Your task to perform on an android device: show emergency info Image 0: 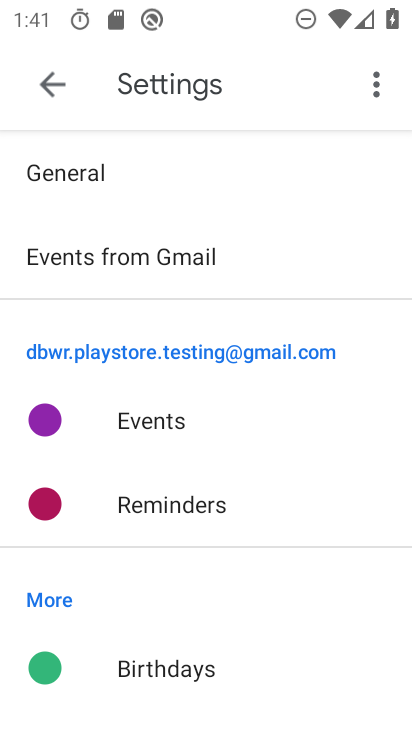
Step 0: press home button
Your task to perform on an android device: show emergency info Image 1: 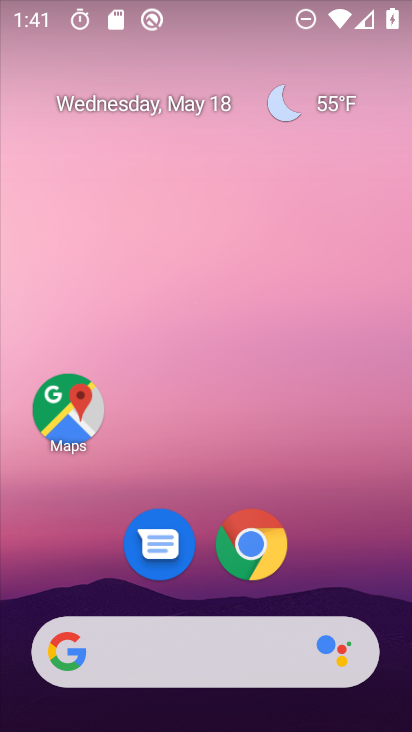
Step 1: drag from (339, 578) to (237, 17)
Your task to perform on an android device: show emergency info Image 2: 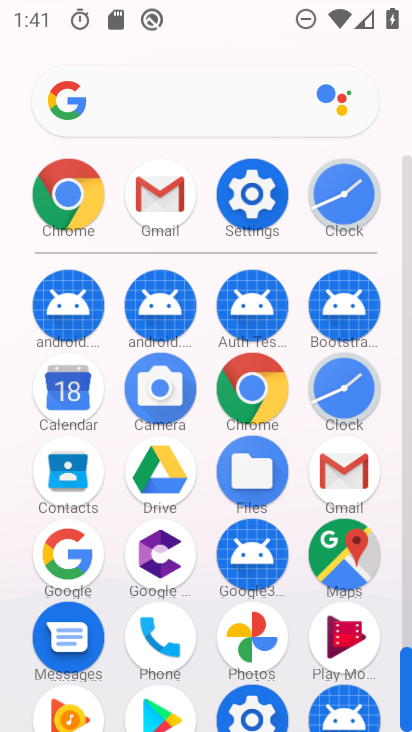
Step 2: click (263, 189)
Your task to perform on an android device: show emergency info Image 3: 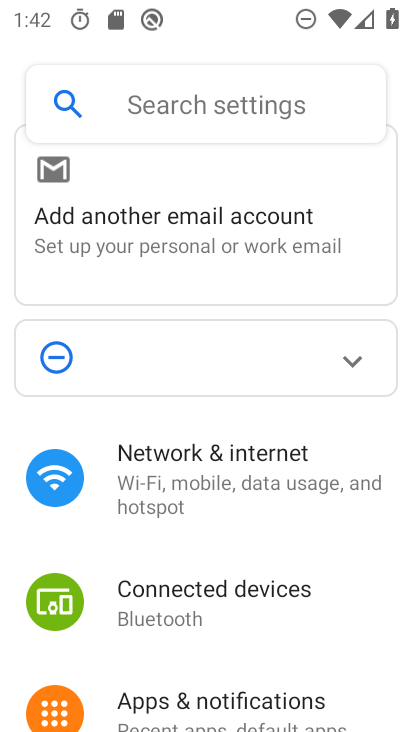
Step 3: drag from (212, 593) to (236, 34)
Your task to perform on an android device: show emergency info Image 4: 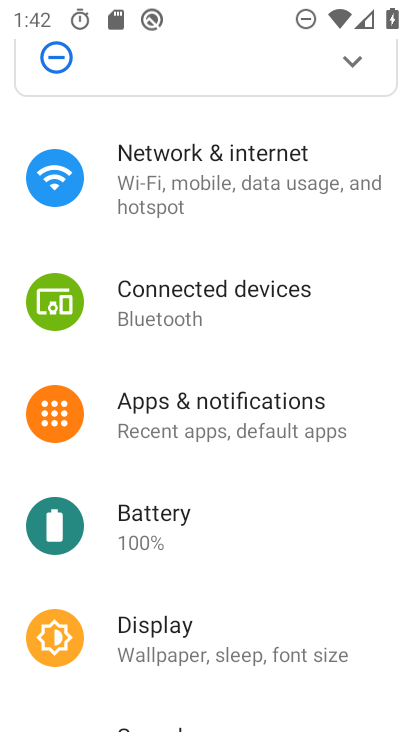
Step 4: drag from (275, 596) to (243, 146)
Your task to perform on an android device: show emergency info Image 5: 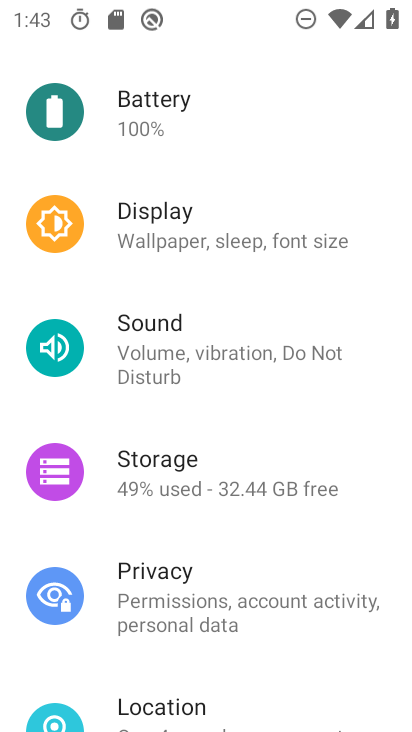
Step 5: drag from (227, 683) to (247, 130)
Your task to perform on an android device: show emergency info Image 6: 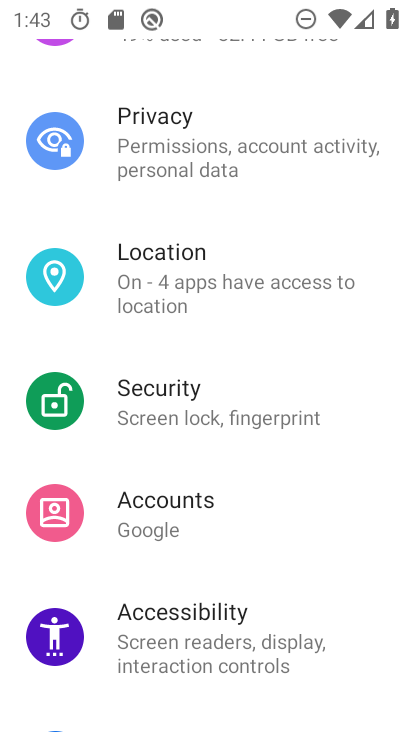
Step 6: drag from (251, 569) to (252, 179)
Your task to perform on an android device: show emergency info Image 7: 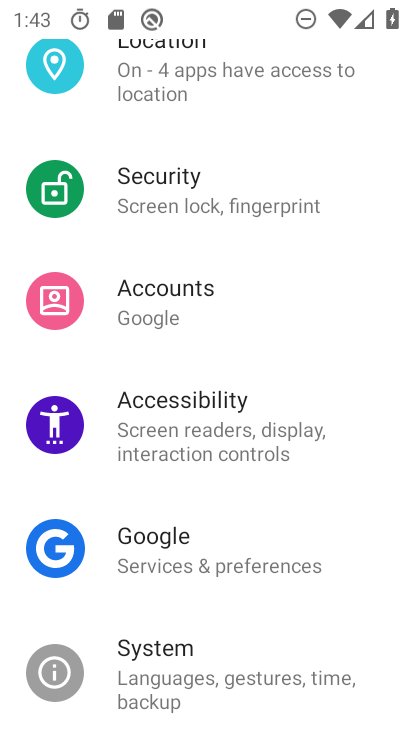
Step 7: drag from (260, 612) to (262, 196)
Your task to perform on an android device: show emergency info Image 8: 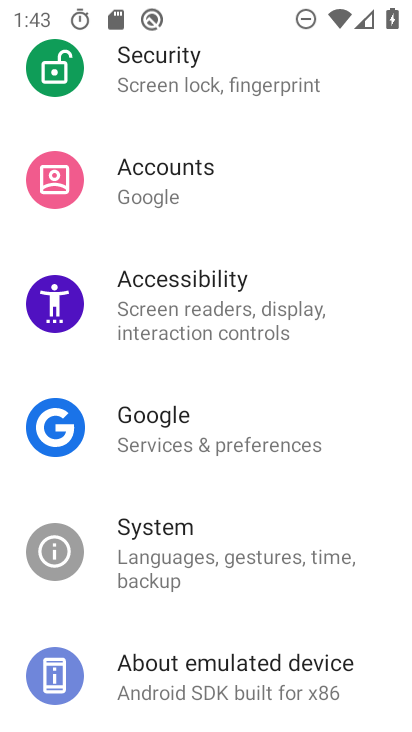
Step 8: click (198, 658)
Your task to perform on an android device: show emergency info Image 9: 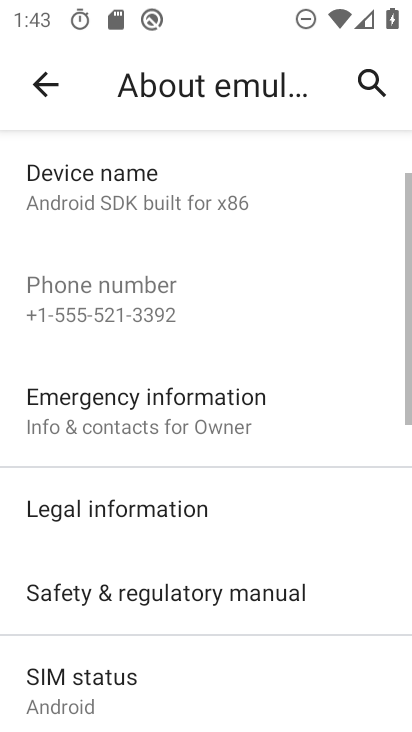
Step 9: drag from (198, 658) to (243, 287)
Your task to perform on an android device: show emergency info Image 10: 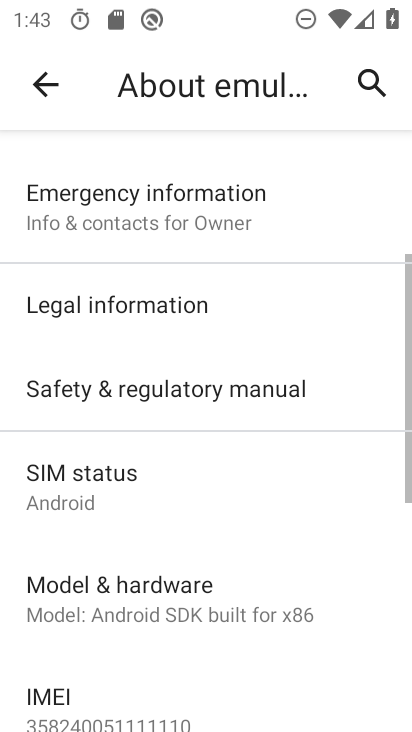
Step 10: drag from (296, 576) to (309, 212)
Your task to perform on an android device: show emergency info Image 11: 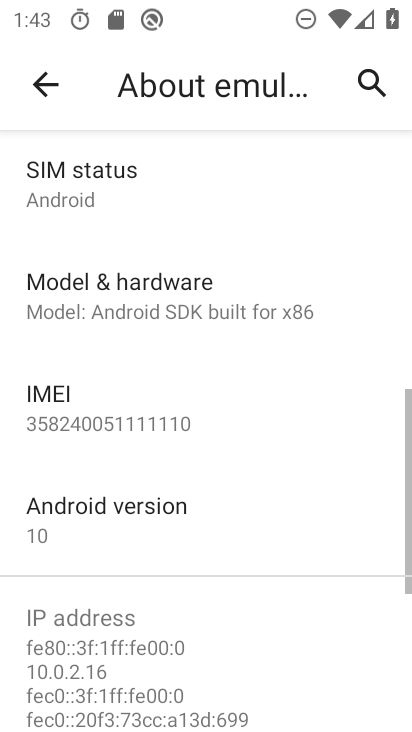
Step 11: drag from (262, 520) to (324, 149)
Your task to perform on an android device: show emergency info Image 12: 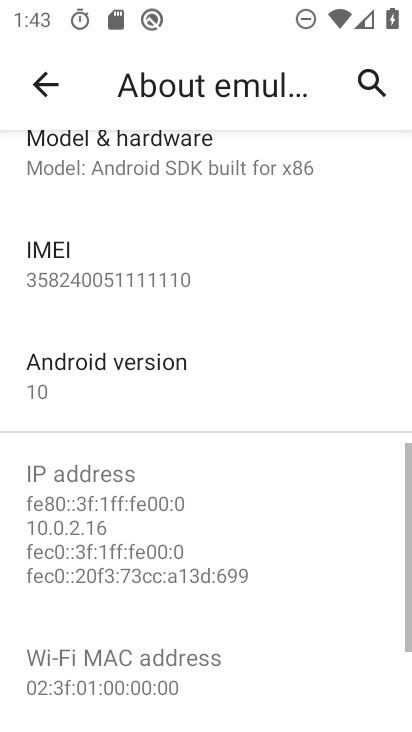
Step 12: drag from (324, 149) to (287, 716)
Your task to perform on an android device: show emergency info Image 13: 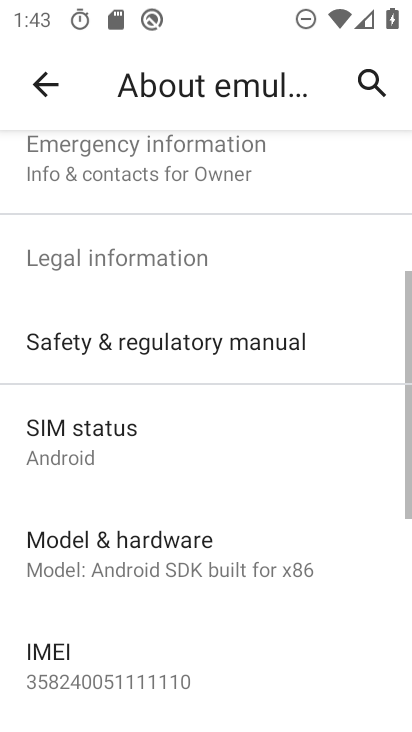
Step 13: drag from (306, 259) to (309, 553)
Your task to perform on an android device: show emergency info Image 14: 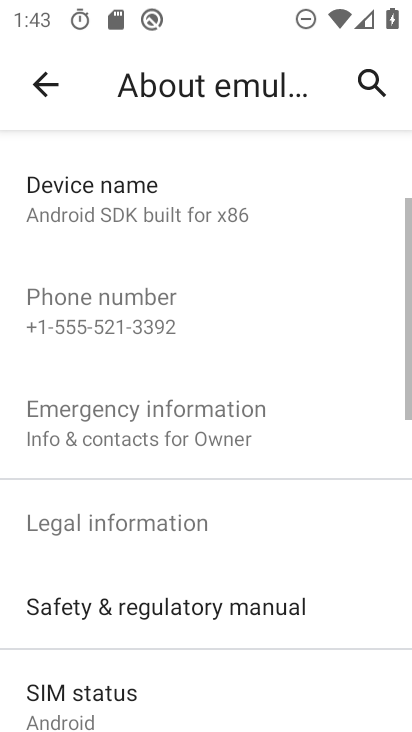
Step 14: click (203, 432)
Your task to perform on an android device: show emergency info Image 15: 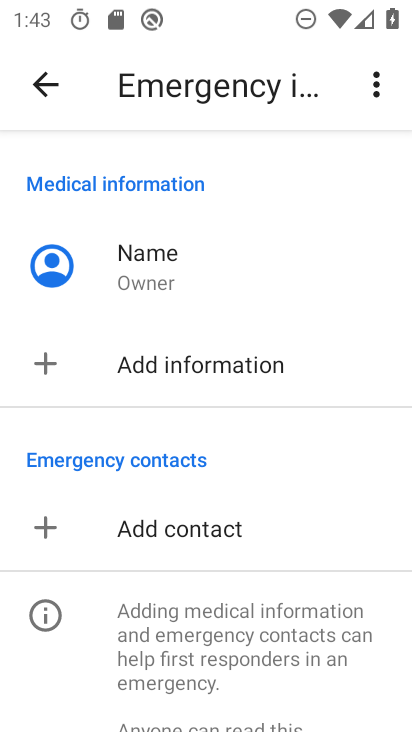
Step 15: task complete